Your task to perform on an android device: Open the web browser Image 0: 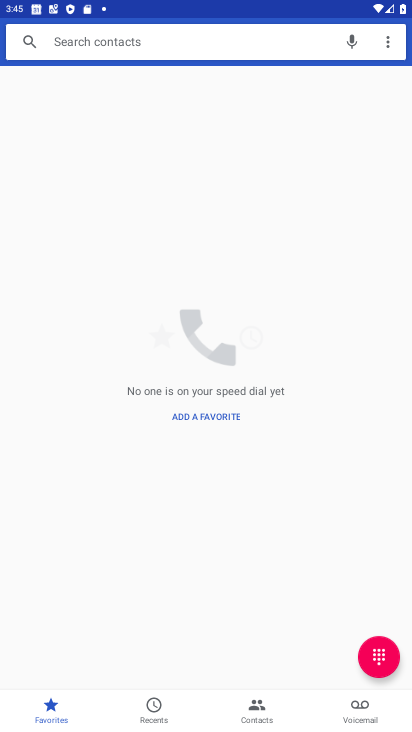
Step 0: press home button
Your task to perform on an android device: Open the web browser Image 1: 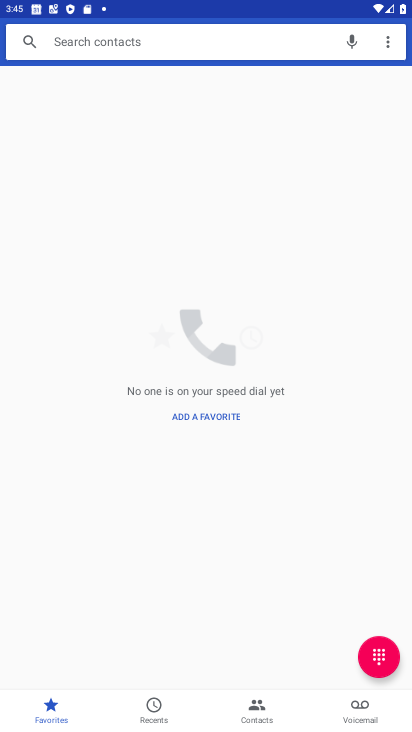
Step 1: press home button
Your task to perform on an android device: Open the web browser Image 2: 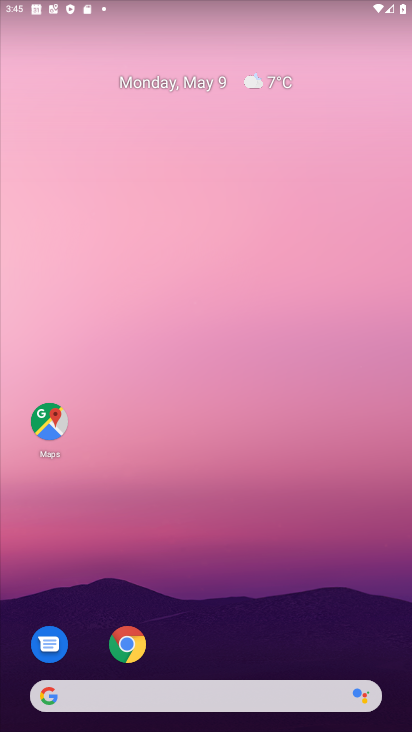
Step 2: drag from (295, 653) to (86, 53)
Your task to perform on an android device: Open the web browser Image 3: 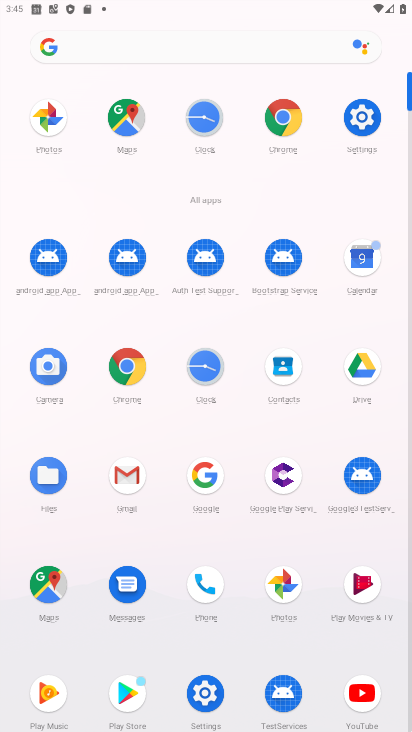
Step 3: click (277, 114)
Your task to perform on an android device: Open the web browser Image 4: 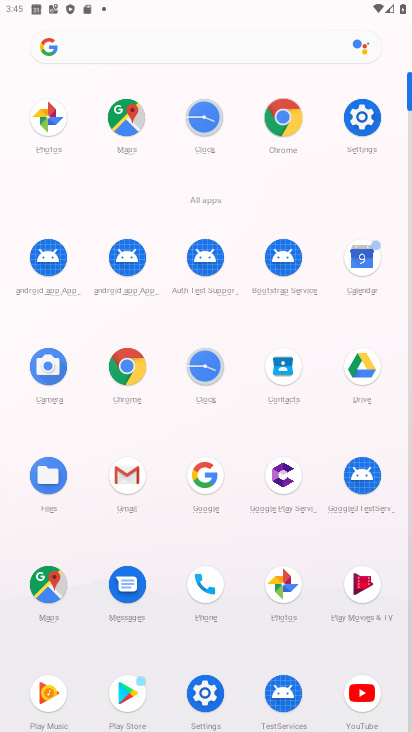
Step 4: click (277, 114)
Your task to perform on an android device: Open the web browser Image 5: 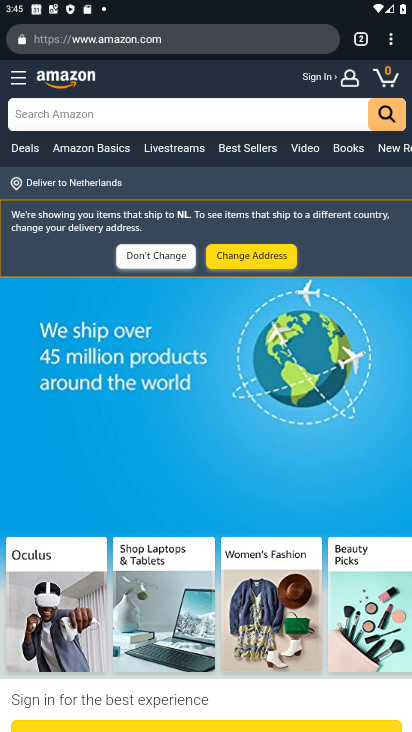
Step 5: drag from (389, 41) to (248, 123)
Your task to perform on an android device: Open the web browser Image 6: 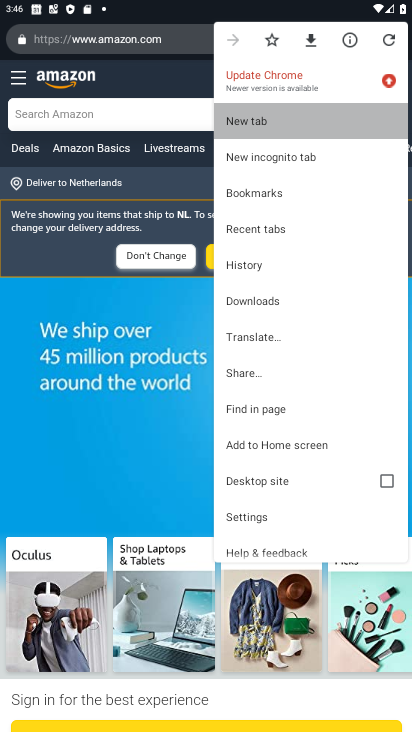
Step 6: click (248, 123)
Your task to perform on an android device: Open the web browser Image 7: 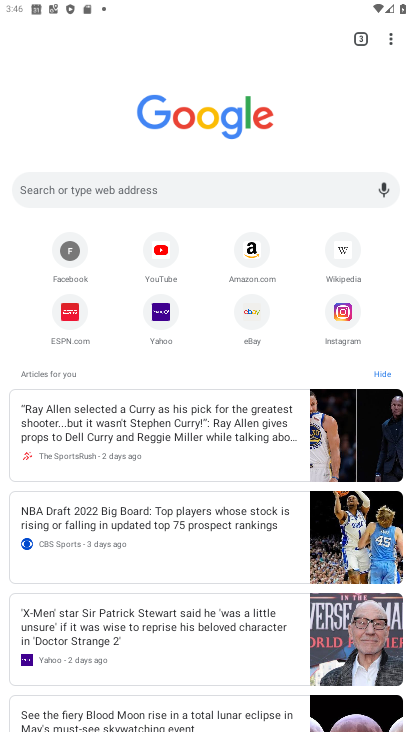
Step 7: task complete